Your task to perform on an android device: Open the calendar app, open the side menu, and click the "Day" option Image 0: 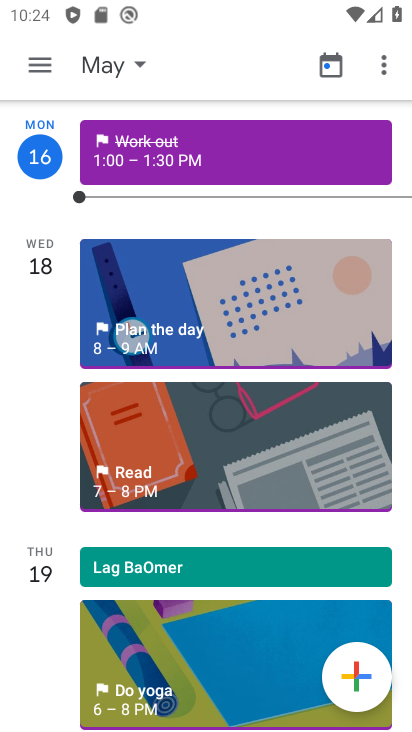
Step 0: click (41, 56)
Your task to perform on an android device: Open the calendar app, open the side menu, and click the "Day" option Image 1: 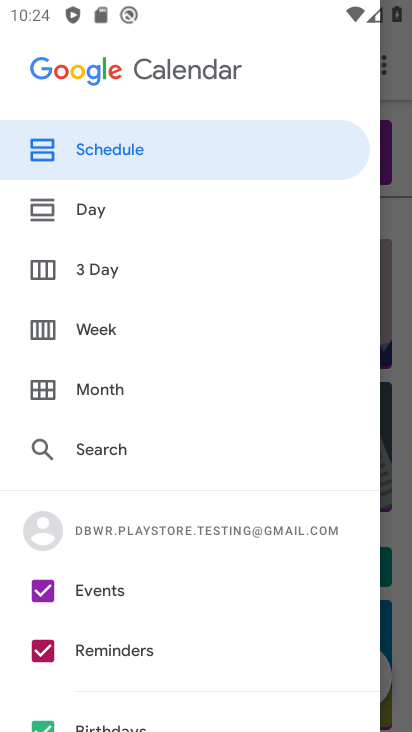
Step 1: click (106, 207)
Your task to perform on an android device: Open the calendar app, open the side menu, and click the "Day" option Image 2: 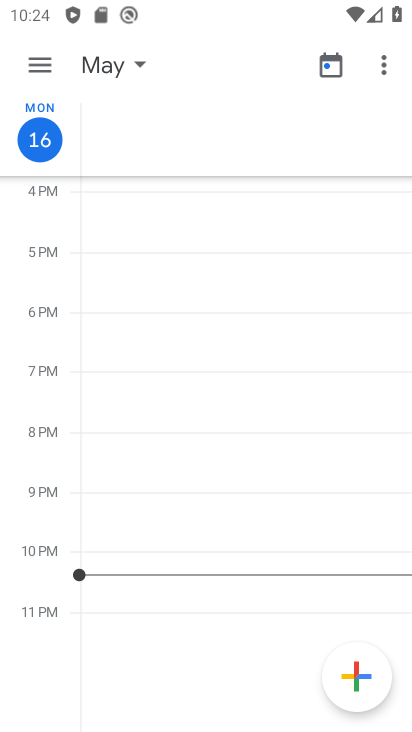
Step 2: task complete